Your task to perform on an android device: choose inbox layout in the gmail app Image 0: 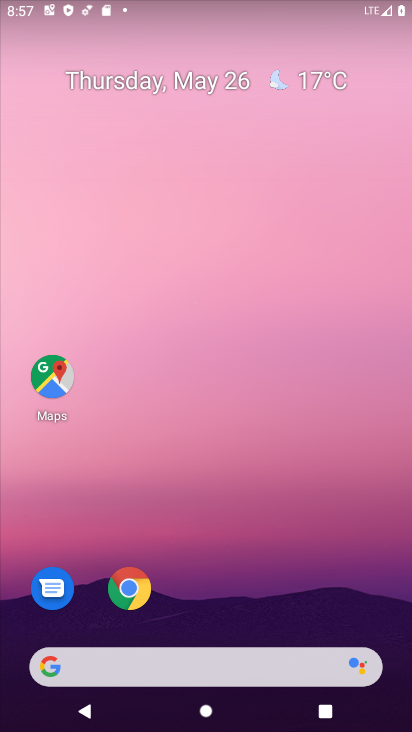
Step 0: drag from (373, 616) to (344, 139)
Your task to perform on an android device: choose inbox layout in the gmail app Image 1: 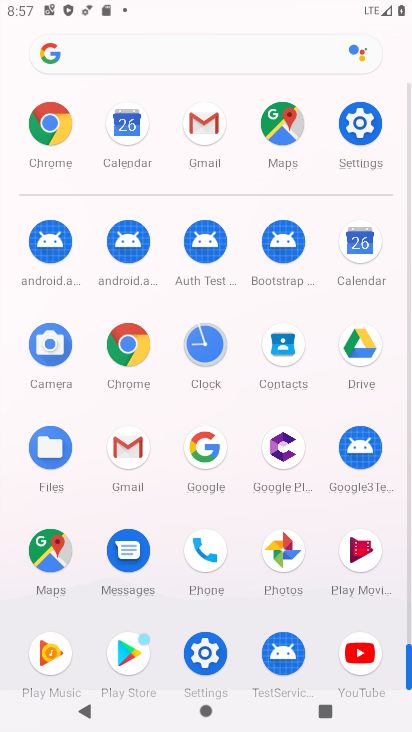
Step 1: click (127, 445)
Your task to perform on an android device: choose inbox layout in the gmail app Image 2: 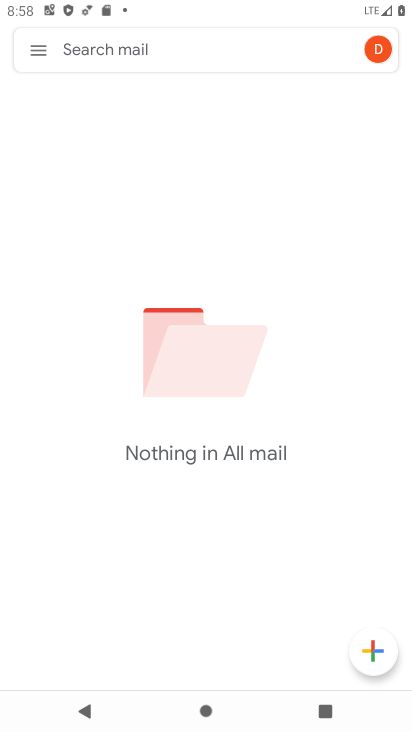
Step 2: click (36, 45)
Your task to perform on an android device: choose inbox layout in the gmail app Image 3: 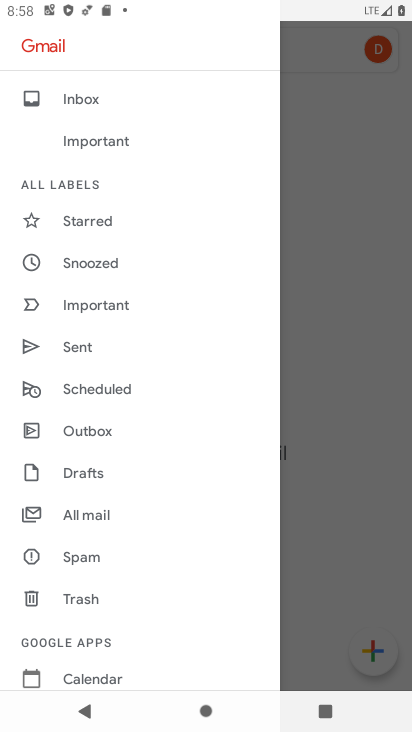
Step 3: drag from (225, 613) to (211, 145)
Your task to perform on an android device: choose inbox layout in the gmail app Image 4: 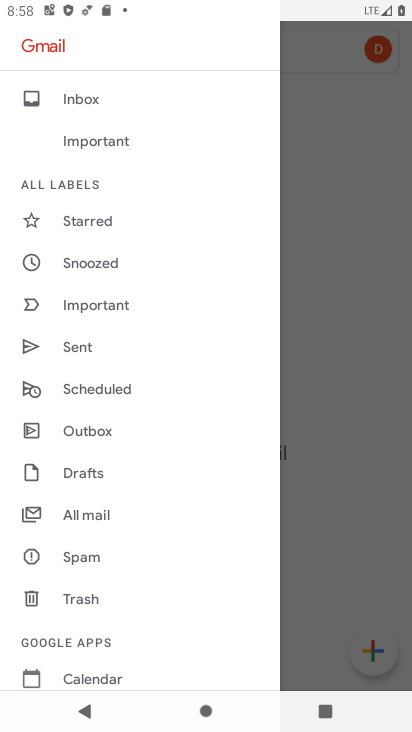
Step 4: drag from (106, 637) to (219, 81)
Your task to perform on an android device: choose inbox layout in the gmail app Image 5: 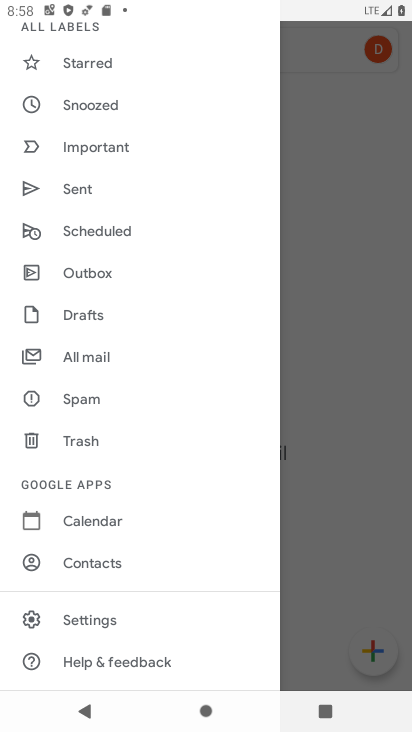
Step 5: click (89, 618)
Your task to perform on an android device: choose inbox layout in the gmail app Image 6: 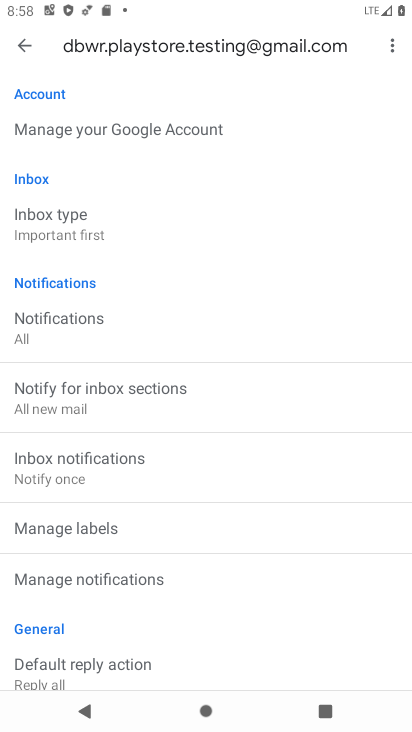
Step 6: click (67, 222)
Your task to perform on an android device: choose inbox layout in the gmail app Image 7: 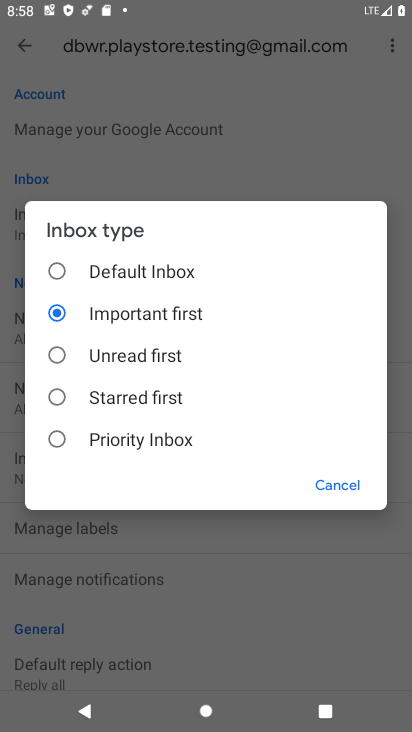
Step 7: click (55, 274)
Your task to perform on an android device: choose inbox layout in the gmail app Image 8: 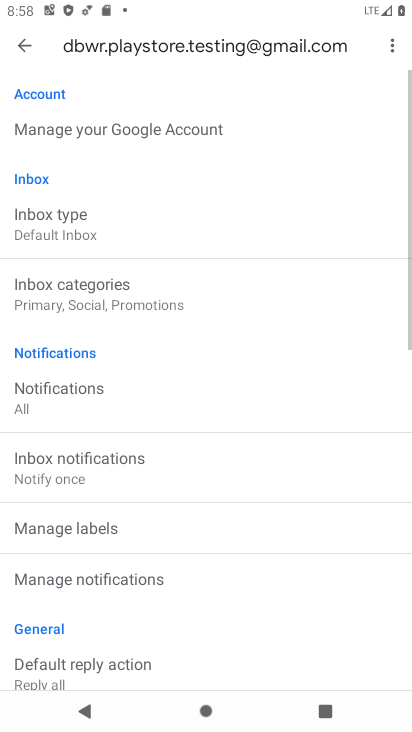
Step 8: task complete